Your task to perform on an android device: turn notification dots off Image 0: 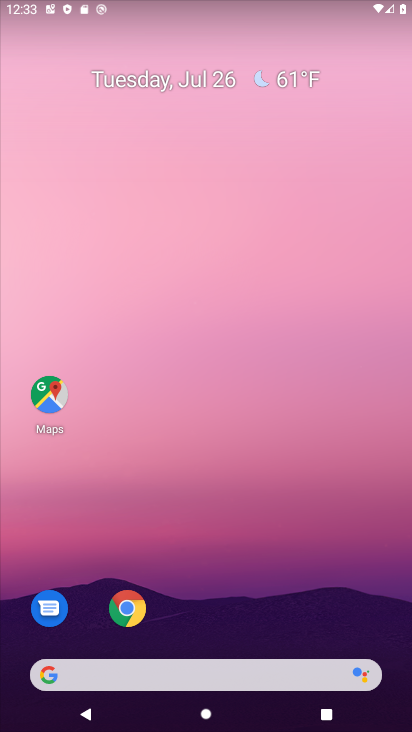
Step 0: drag from (347, 593) to (379, 140)
Your task to perform on an android device: turn notification dots off Image 1: 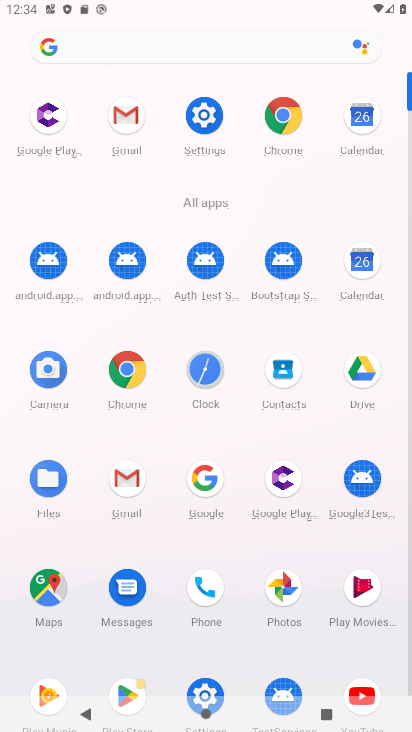
Step 1: click (208, 132)
Your task to perform on an android device: turn notification dots off Image 2: 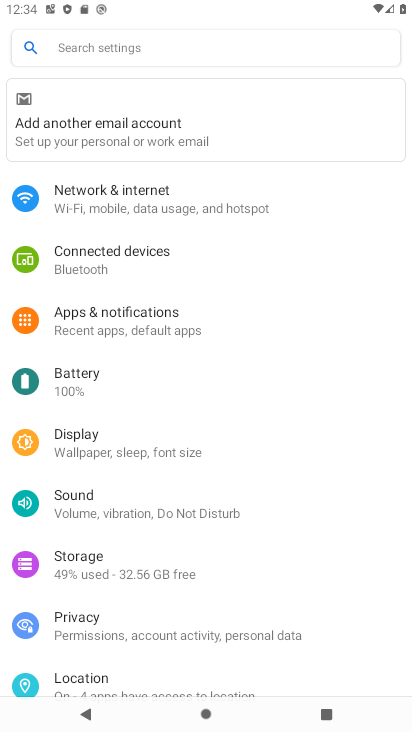
Step 2: drag from (322, 463) to (333, 369)
Your task to perform on an android device: turn notification dots off Image 3: 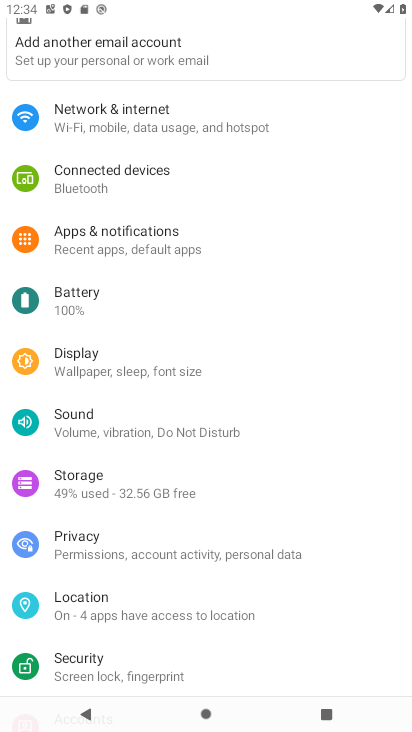
Step 3: drag from (343, 468) to (331, 343)
Your task to perform on an android device: turn notification dots off Image 4: 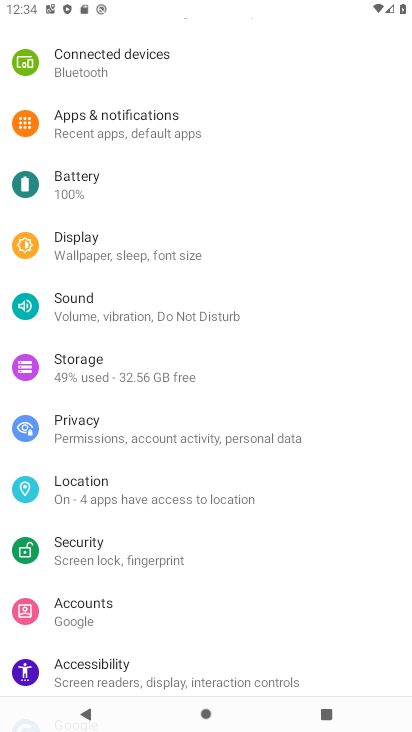
Step 4: drag from (336, 532) to (336, 429)
Your task to perform on an android device: turn notification dots off Image 5: 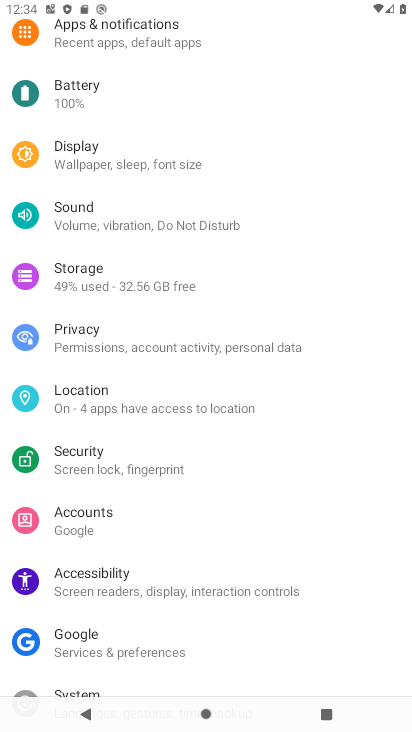
Step 5: drag from (348, 565) to (342, 430)
Your task to perform on an android device: turn notification dots off Image 6: 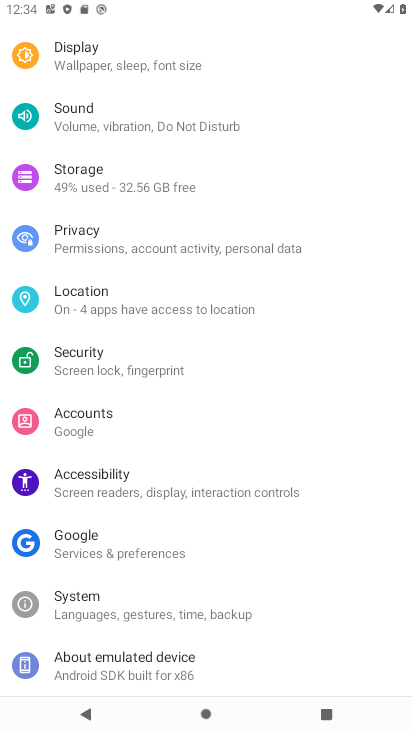
Step 6: drag from (333, 560) to (332, 434)
Your task to perform on an android device: turn notification dots off Image 7: 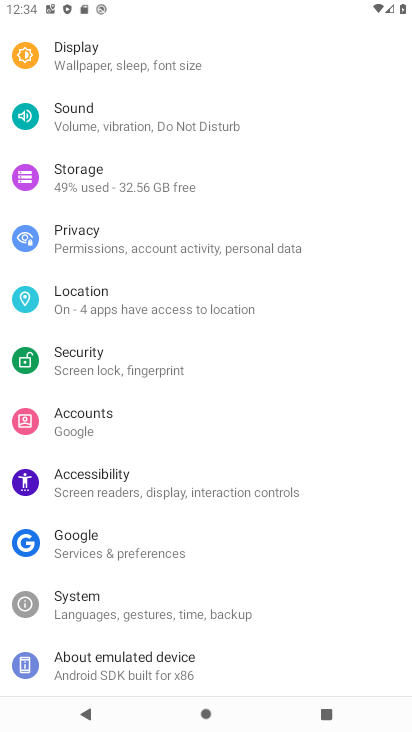
Step 7: drag from (318, 324) to (319, 434)
Your task to perform on an android device: turn notification dots off Image 8: 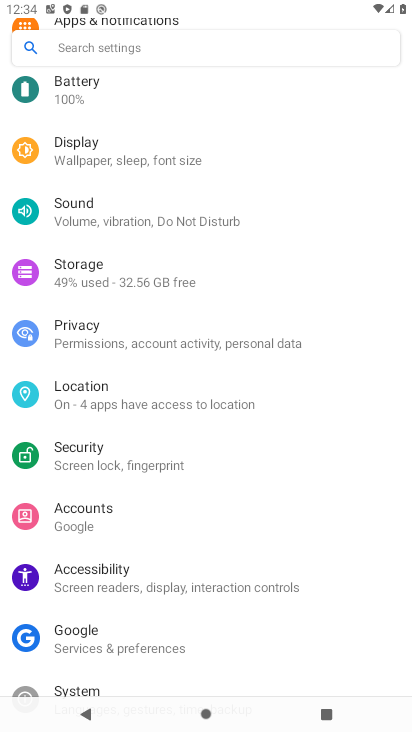
Step 8: drag from (338, 360) to (339, 458)
Your task to perform on an android device: turn notification dots off Image 9: 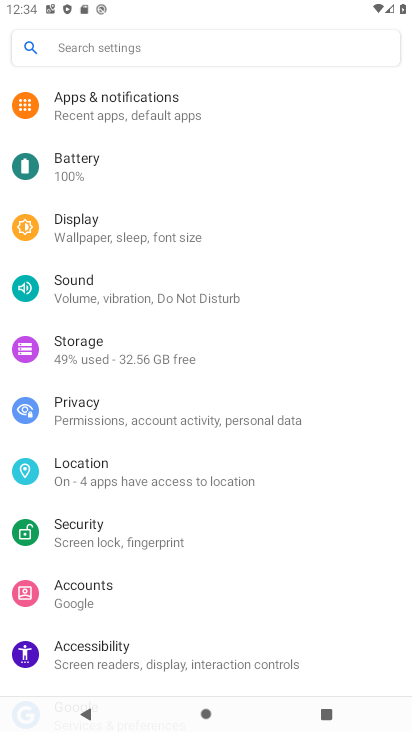
Step 9: drag from (329, 288) to (338, 511)
Your task to perform on an android device: turn notification dots off Image 10: 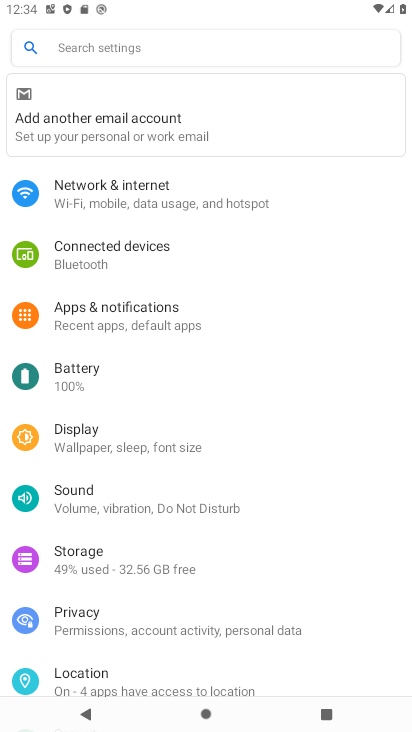
Step 10: drag from (318, 270) to (322, 398)
Your task to perform on an android device: turn notification dots off Image 11: 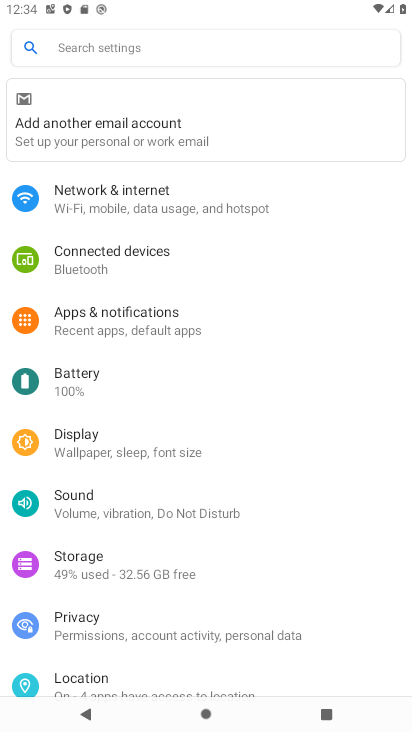
Step 11: click (188, 312)
Your task to perform on an android device: turn notification dots off Image 12: 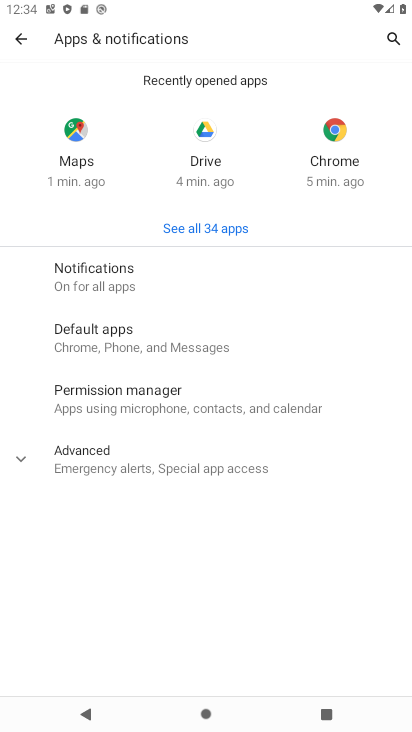
Step 12: click (145, 287)
Your task to perform on an android device: turn notification dots off Image 13: 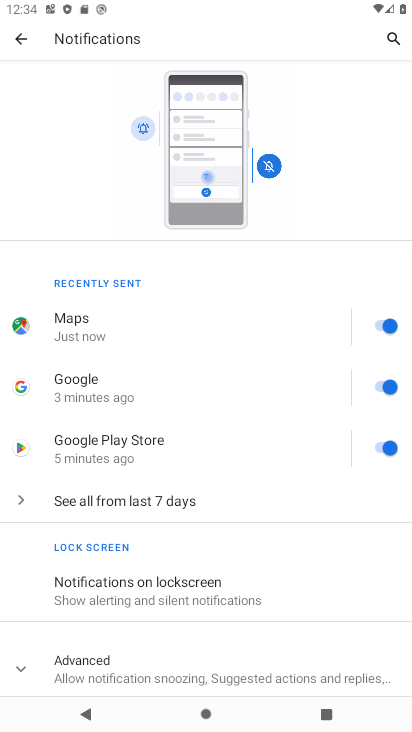
Step 13: drag from (306, 517) to (302, 428)
Your task to perform on an android device: turn notification dots off Image 14: 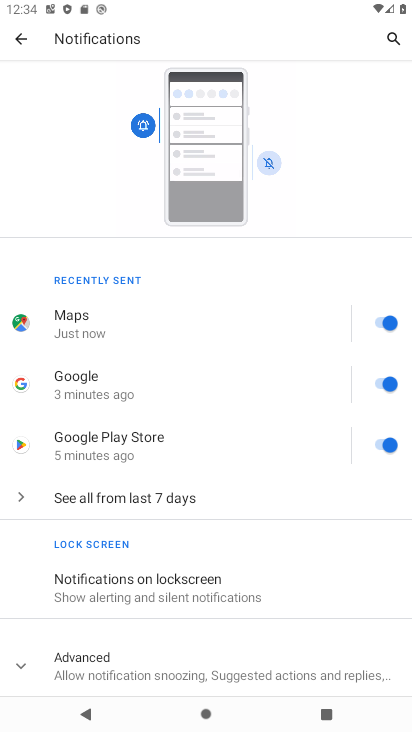
Step 14: click (307, 659)
Your task to perform on an android device: turn notification dots off Image 15: 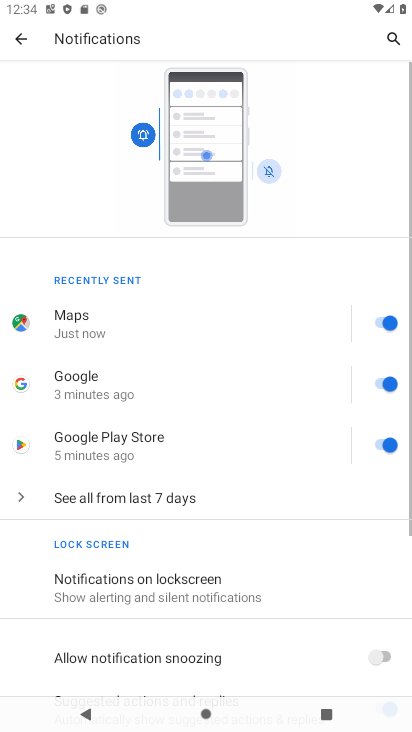
Step 15: drag from (307, 659) to (304, 479)
Your task to perform on an android device: turn notification dots off Image 16: 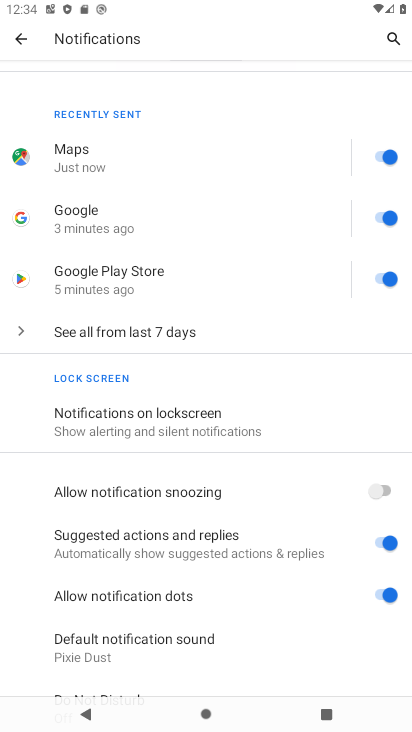
Step 16: drag from (296, 607) to (297, 518)
Your task to perform on an android device: turn notification dots off Image 17: 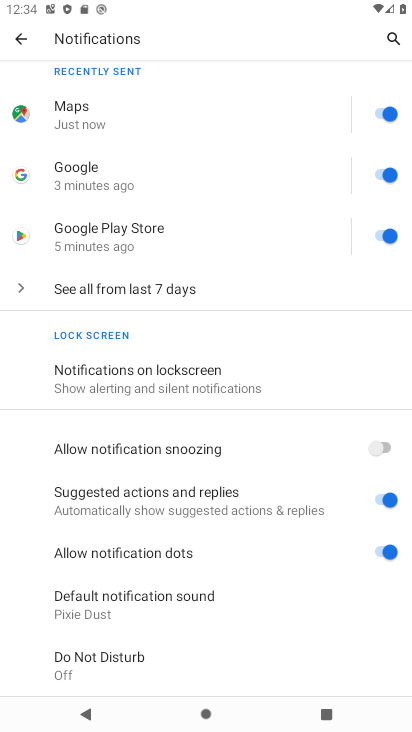
Step 17: click (385, 552)
Your task to perform on an android device: turn notification dots off Image 18: 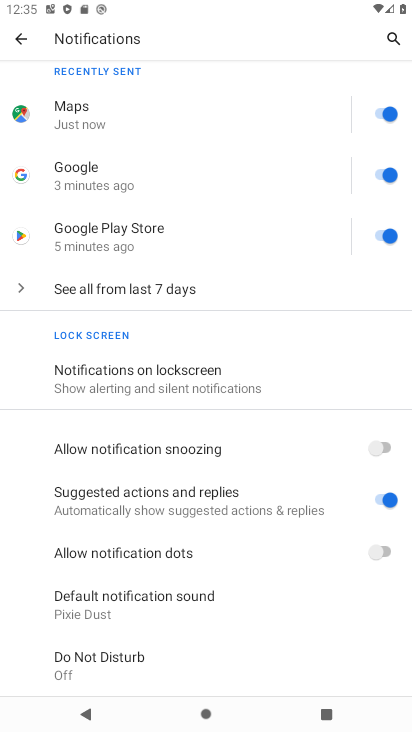
Step 18: task complete